Your task to perform on an android device: Open the web browser Image 0: 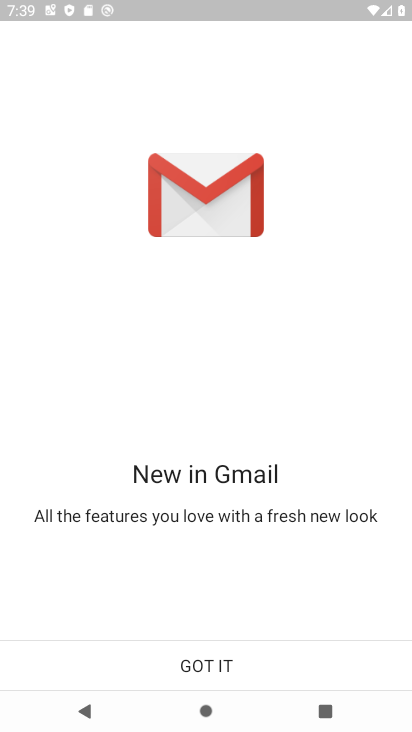
Step 0: click (218, 663)
Your task to perform on an android device: Open the web browser Image 1: 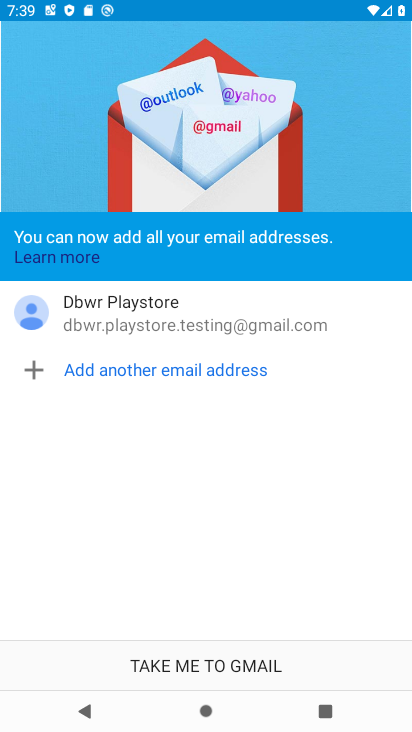
Step 1: click (201, 668)
Your task to perform on an android device: Open the web browser Image 2: 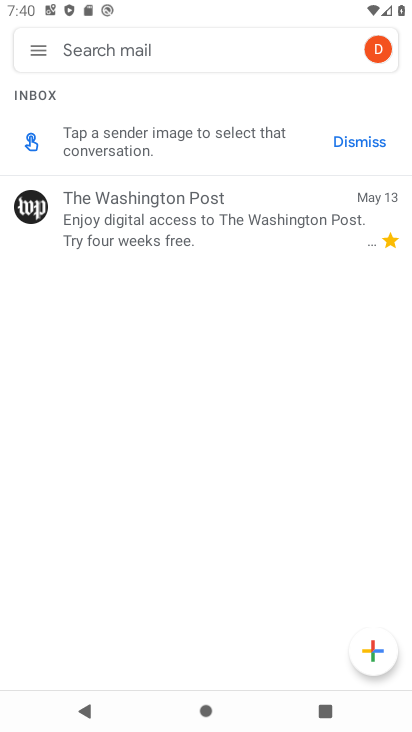
Step 2: press home button
Your task to perform on an android device: Open the web browser Image 3: 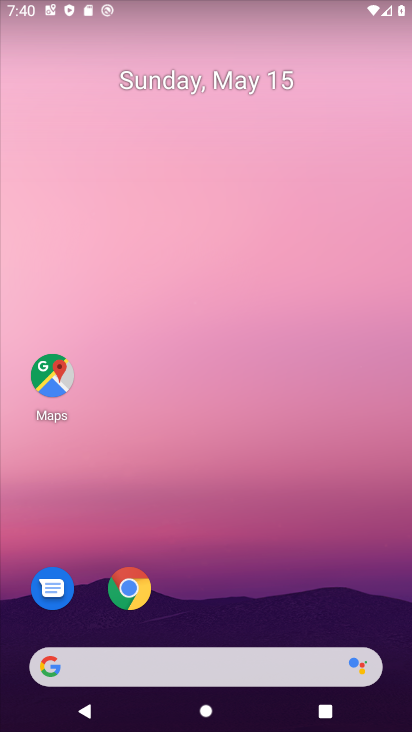
Step 3: click (128, 583)
Your task to perform on an android device: Open the web browser Image 4: 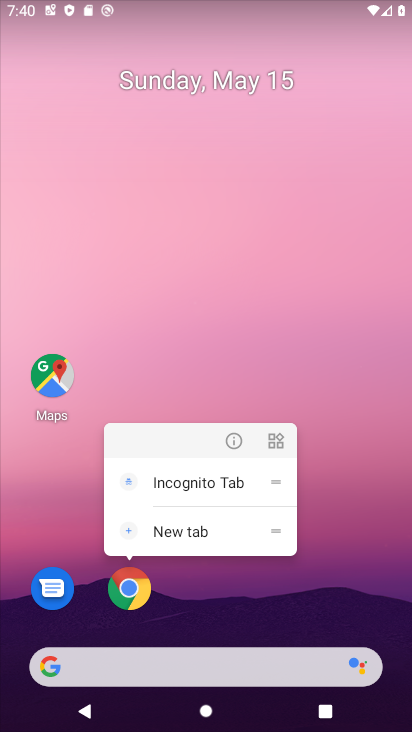
Step 4: click (128, 583)
Your task to perform on an android device: Open the web browser Image 5: 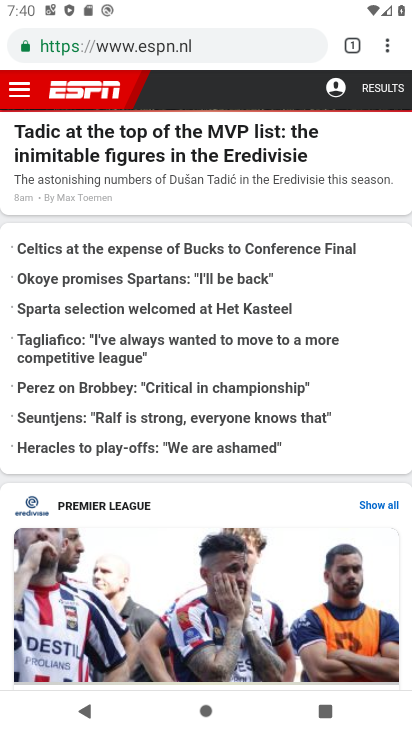
Step 5: task complete